Your task to perform on an android device: Search for Italian restaurants on Maps Image 0: 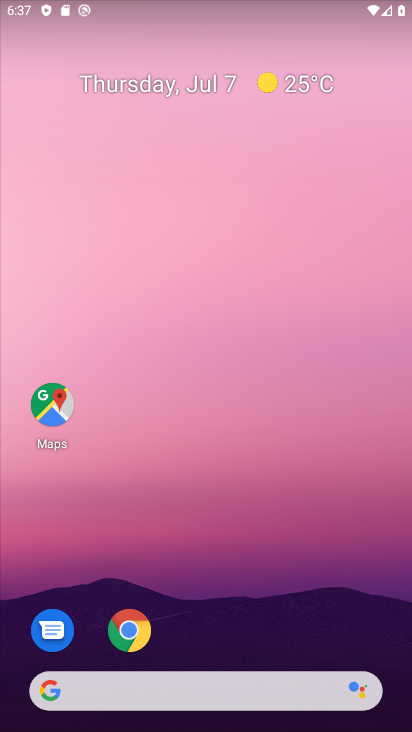
Step 0: click (53, 405)
Your task to perform on an android device: Search for Italian restaurants on Maps Image 1: 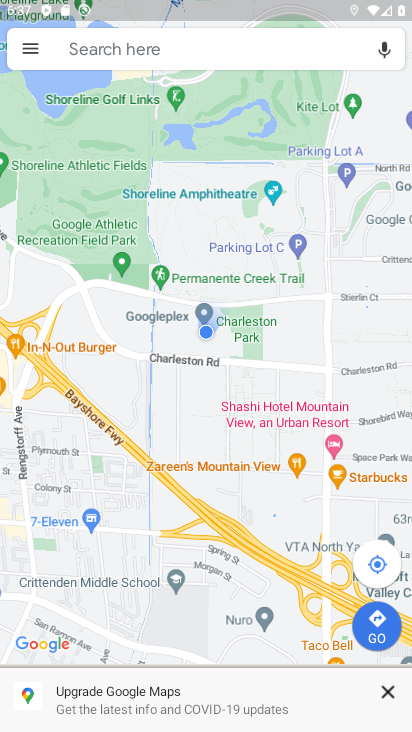
Step 1: click (139, 43)
Your task to perform on an android device: Search for Italian restaurants on Maps Image 2: 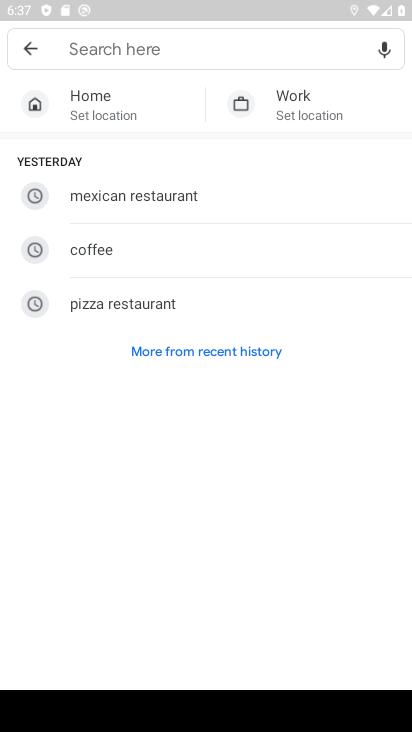
Step 2: type "italian restaurants"
Your task to perform on an android device: Search for Italian restaurants on Maps Image 3: 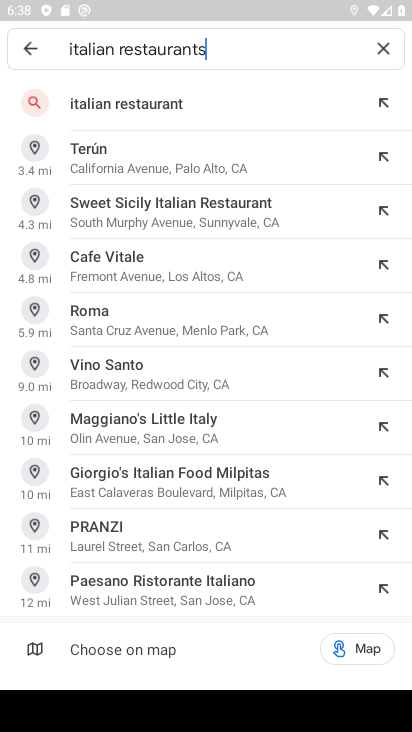
Step 3: click (137, 103)
Your task to perform on an android device: Search for Italian restaurants on Maps Image 4: 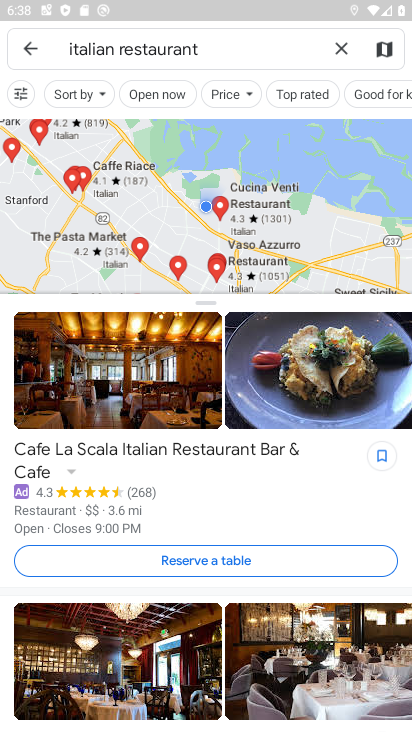
Step 4: task complete